Your task to perform on an android device: open chrome privacy settings Image 0: 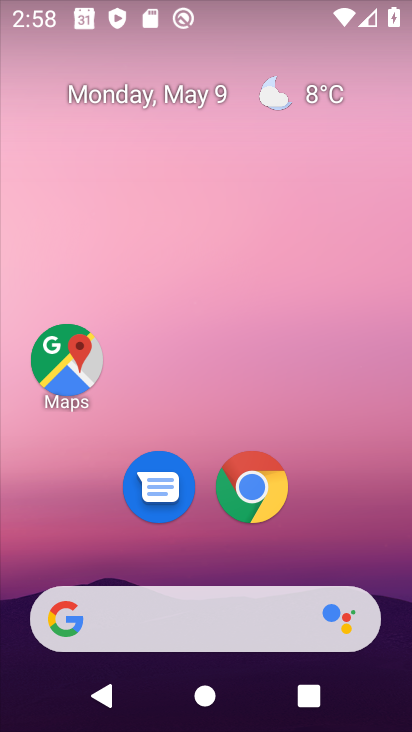
Step 0: click (249, 485)
Your task to perform on an android device: open chrome privacy settings Image 1: 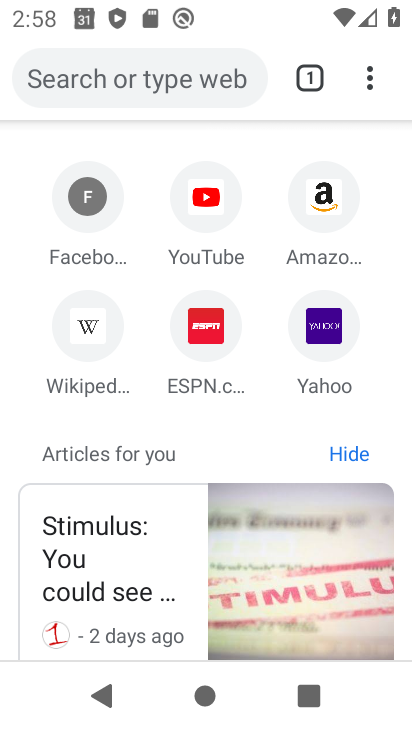
Step 1: click (365, 77)
Your task to perform on an android device: open chrome privacy settings Image 2: 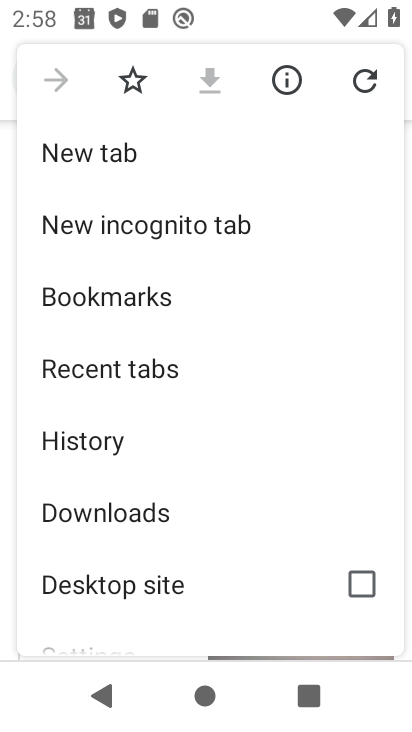
Step 2: drag from (194, 585) to (187, 187)
Your task to perform on an android device: open chrome privacy settings Image 3: 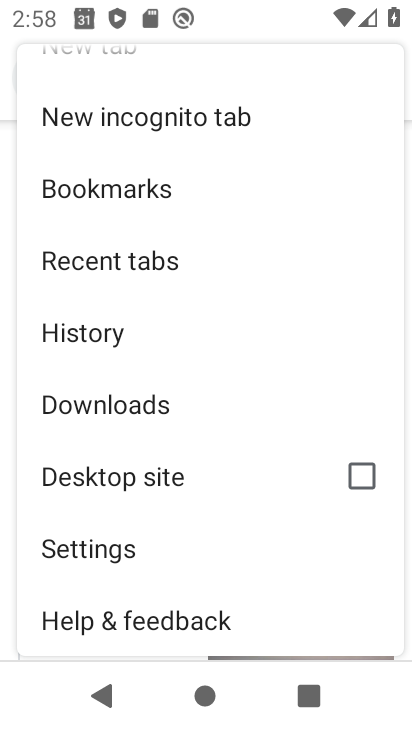
Step 3: click (146, 545)
Your task to perform on an android device: open chrome privacy settings Image 4: 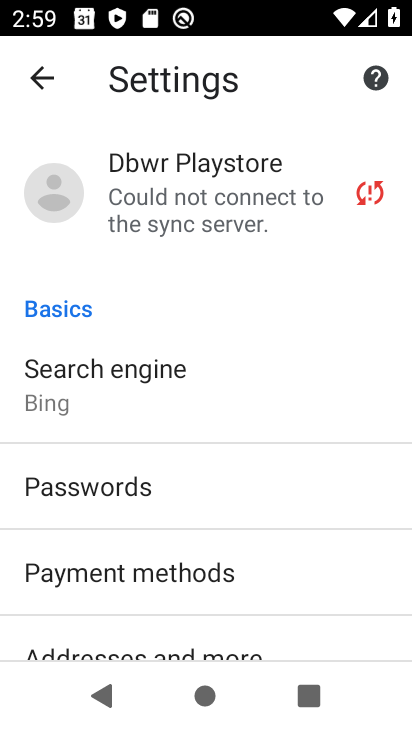
Step 4: drag from (239, 610) to (242, 376)
Your task to perform on an android device: open chrome privacy settings Image 5: 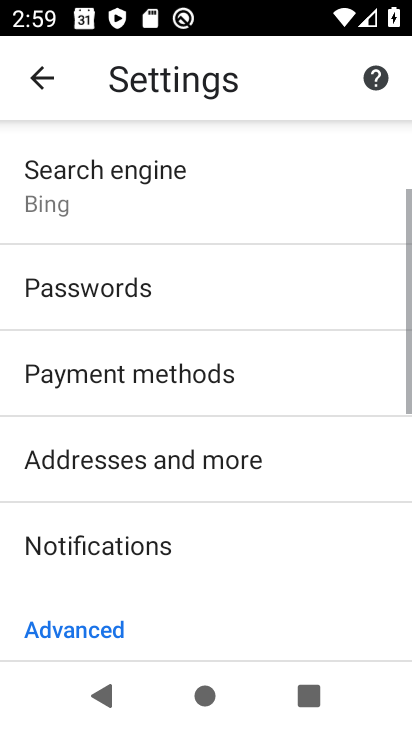
Step 5: drag from (243, 313) to (243, 273)
Your task to perform on an android device: open chrome privacy settings Image 6: 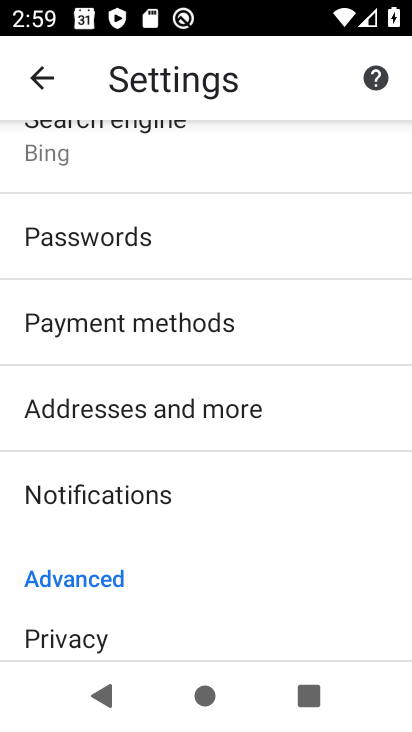
Step 6: click (142, 638)
Your task to perform on an android device: open chrome privacy settings Image 7: 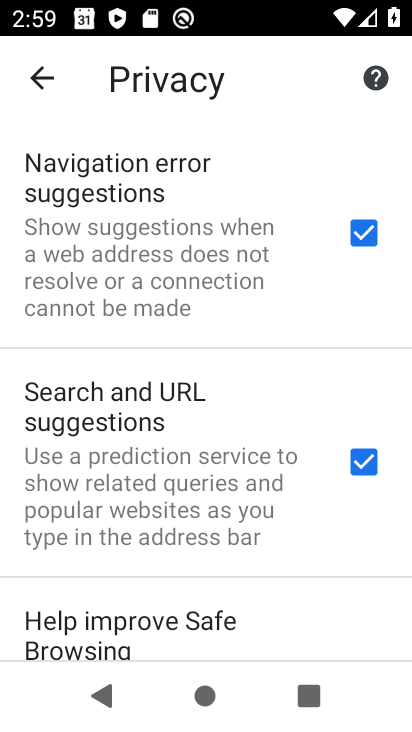
Step 7: task complete